Your task to perform on an android device: set an alarm Image 0: 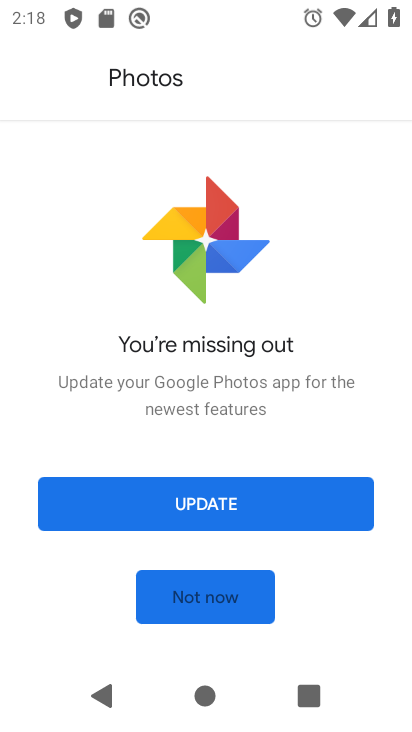
Step 0: press home button
Your task to perform on an android device: set an alarm Image 1: 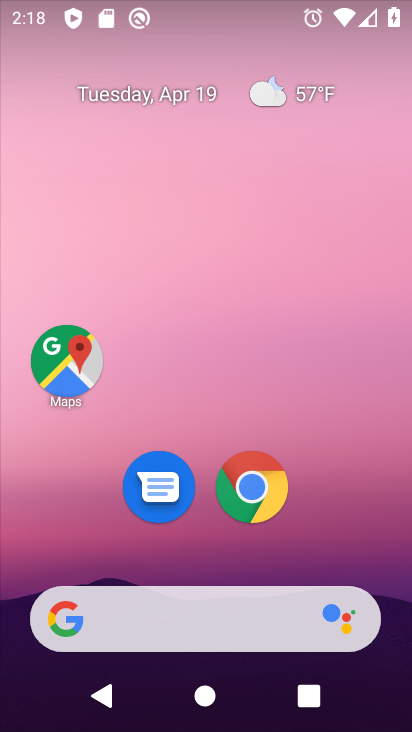
Step 1: drag from (348, 524) to (327, 145)
Your task to perform on an android device: set an alarm Image 2: 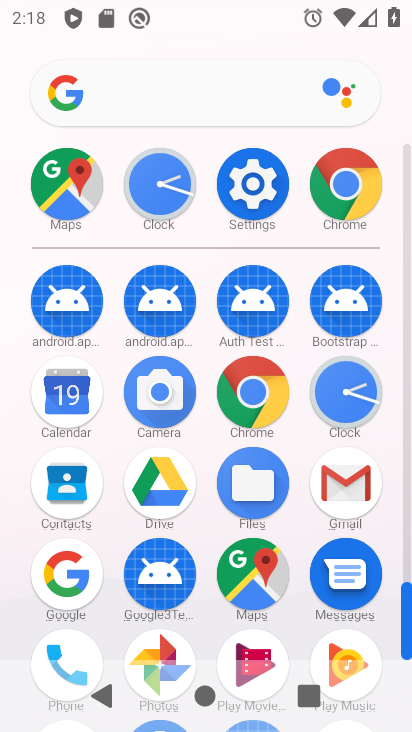
Step 2: click (340, 400)
Your task to perform on an android device: set an alarm Image 3: 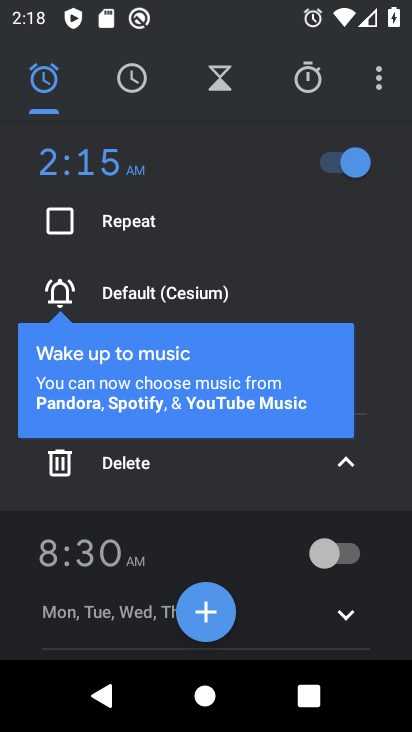
Step 3: click (211, 619)
Your task to perform on an android device: set an alarm Image 4: 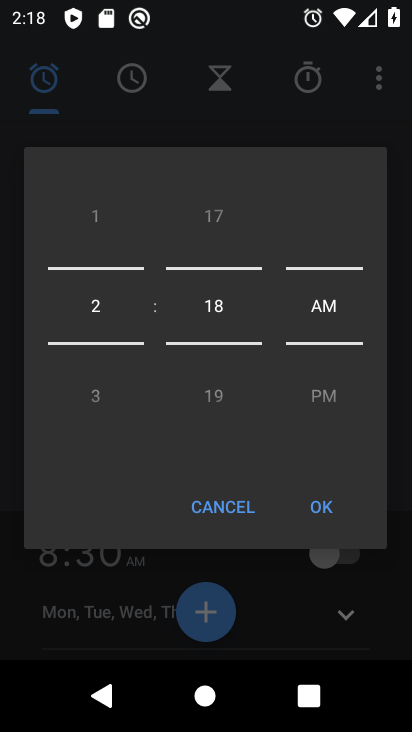
Step 4: click (330, 517)
Your task to perform on an android device: set an alarm Image 5: 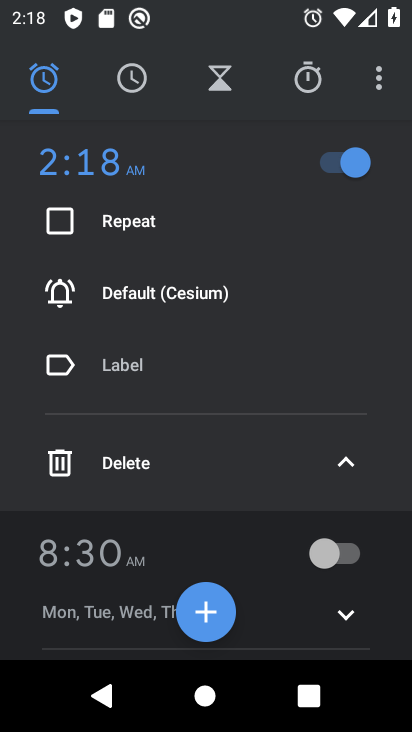
Step 5: task complete